Your task to perform on an android device: open the mobile data screen to see how much data has been used Image 0: 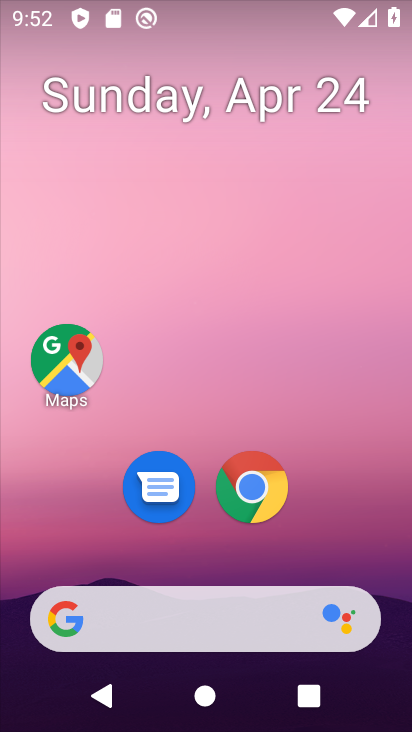
Step 0: drag from (313, 544) to (319, 118)
Your task to perform on an android device: open the mobile data screen to see how much data has been used Image 1: 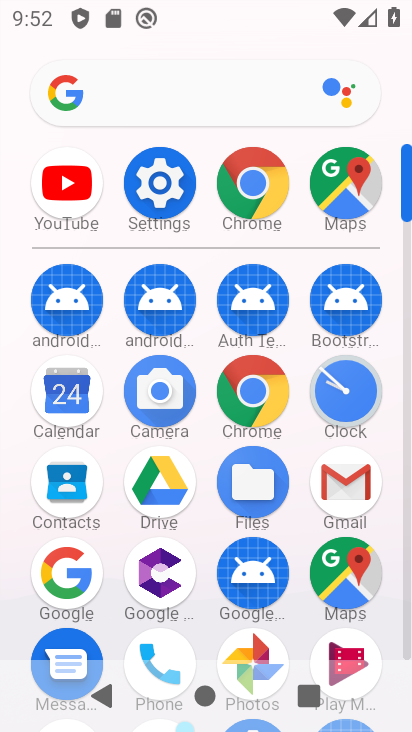
Step 1: drag from (195, 12) to (167, 513)
Your task to perform on an android device: open the mobile data screen to see how much data has been used Image 2: 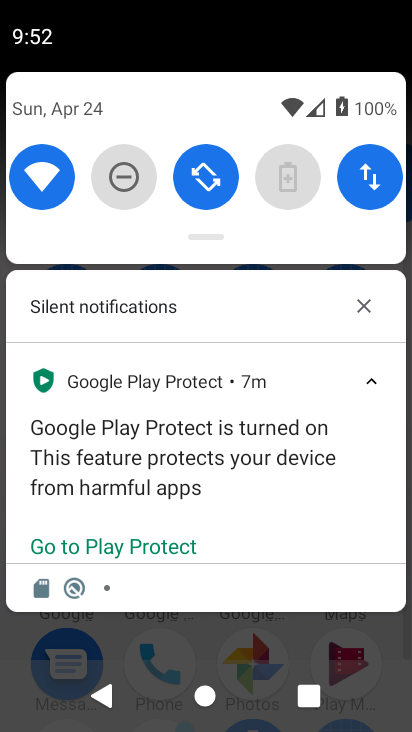
Step 2: drag from (236, 219) to (231, 583)
Your task to perform on an android device: open the mobile data screen to see how much data has been used Image 3: 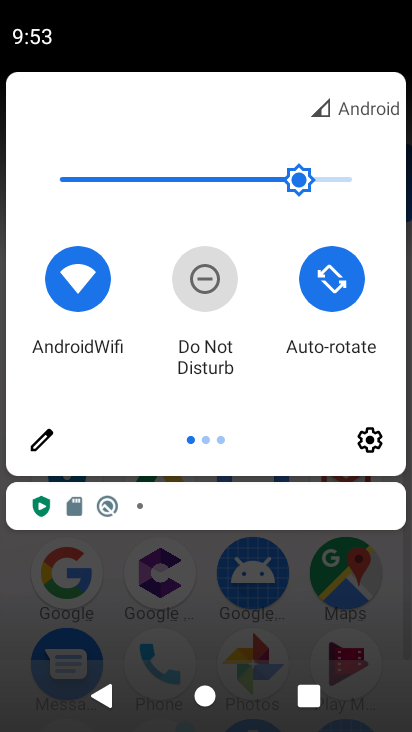
Step 3: drag from (362, 233) to (48, 213)
Your task to perform on an android device: open the mobile data screen to see how much data has been used Image 4: 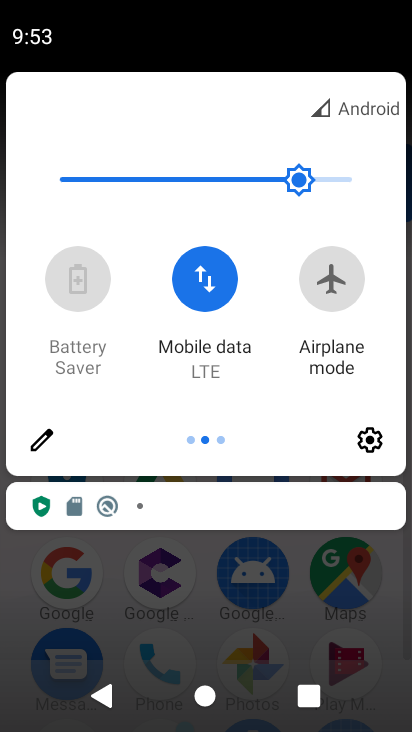
Step 4: click (196, 282)
Your task to perform on an android device: open the mobile data screen to see how much data has been used Image 5: 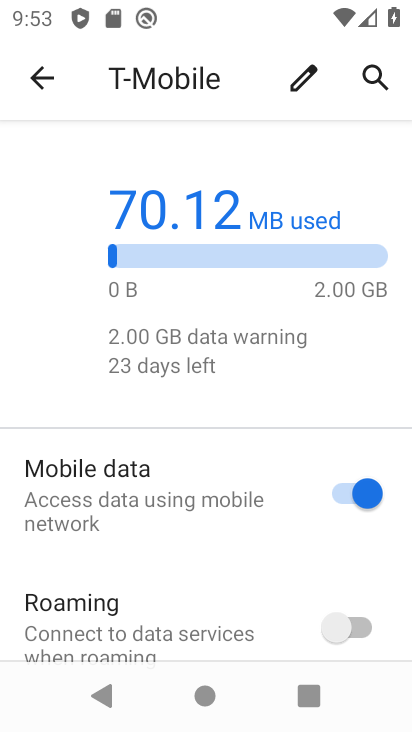
Step 5: task complete